Your task to perform on an android device: Open location settings Image 0: 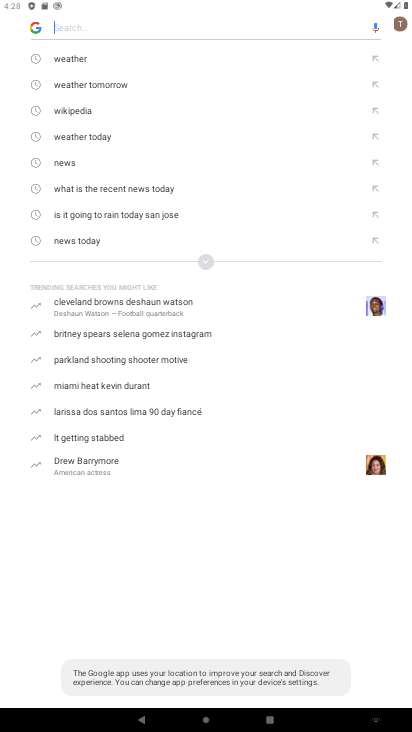
Step 0: press home button
Your task to perform on an android device: Open location settings Image 1: 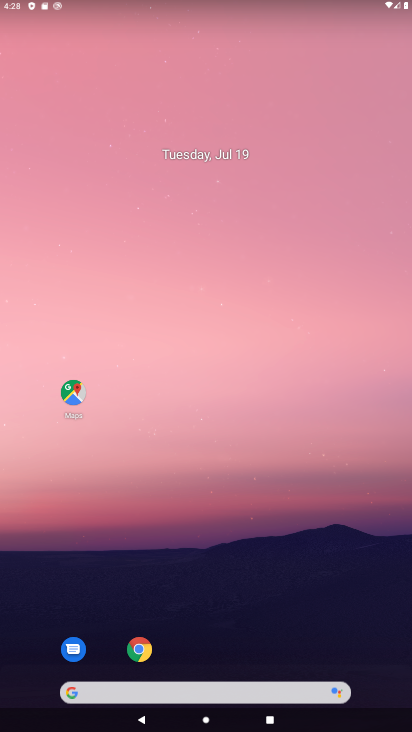
Step 1: drag from (272, 657) to (240, 112)
Your task to perform on an android device: Open location settings Image 2: 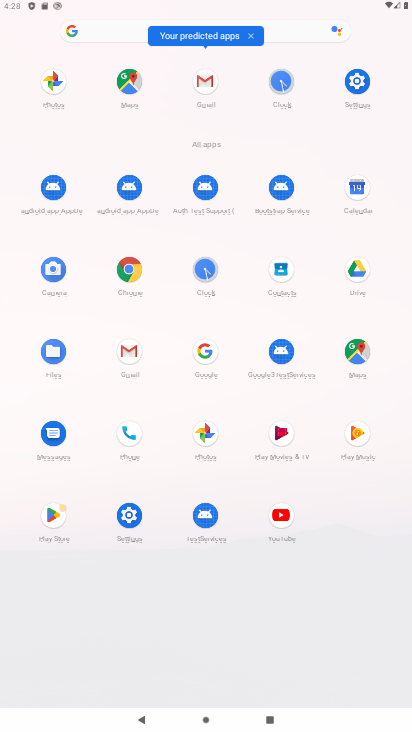
Step 2: click (355, 88)
Your task to perform on an android device: Open location settings Image 3: 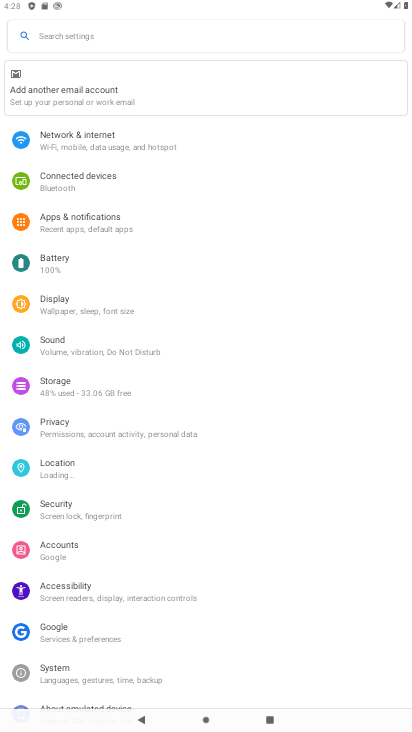
Step 3: click (54, 467)
Your task to perform on an android device: Open location settings Image 4: 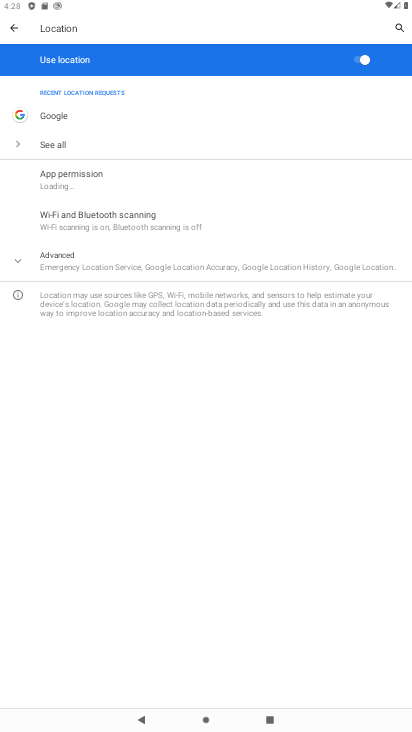
Step 4: click (99, 262)
Your task to perform on an android device: Open location settings Image 5: 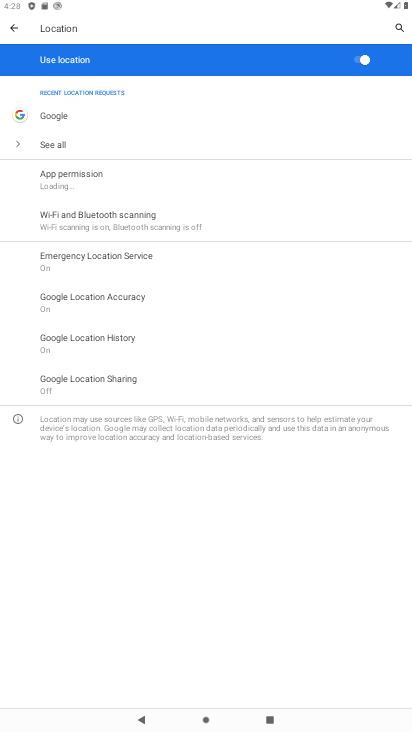
Step 5: task complete